Your task to perform on an android device: Open my contact list Image 0: 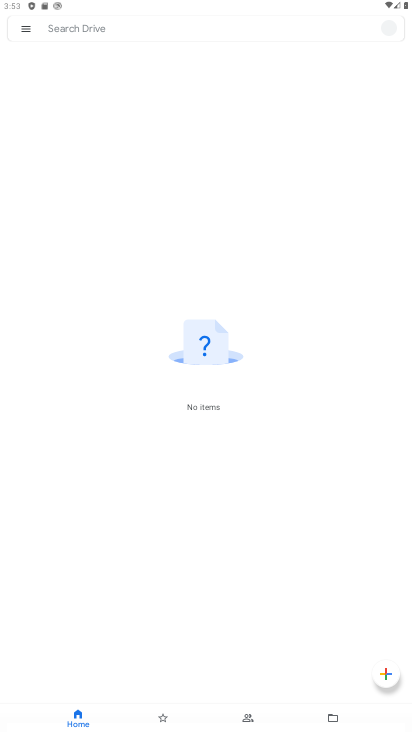
Step 0: drag from (258, 522) to (258, 56)
Your task to perform on an android device: Open my contact list Image 1: 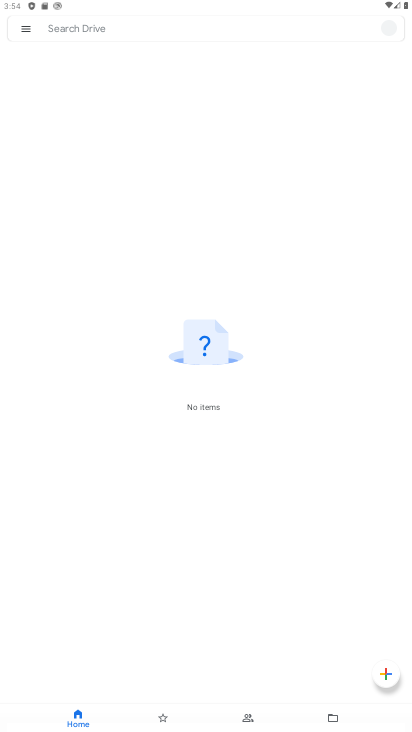
Step 1: press home button
Your task to perform on an android device: Open my contact list Image 2: 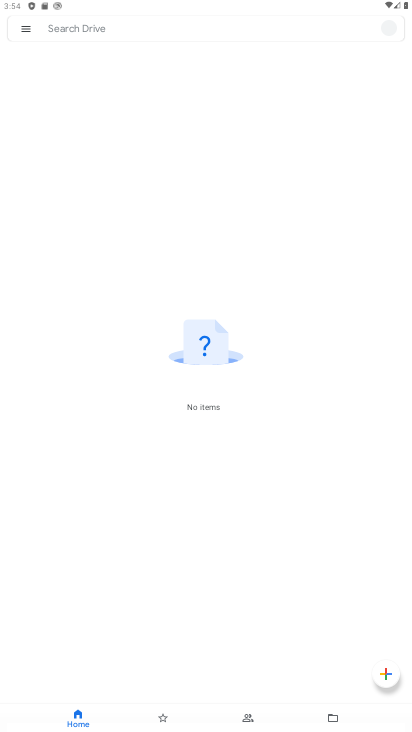
Step 2: drag from (268, 674) to (278, 299)
Your task to perform on an android device: Open my contact list Image 3: 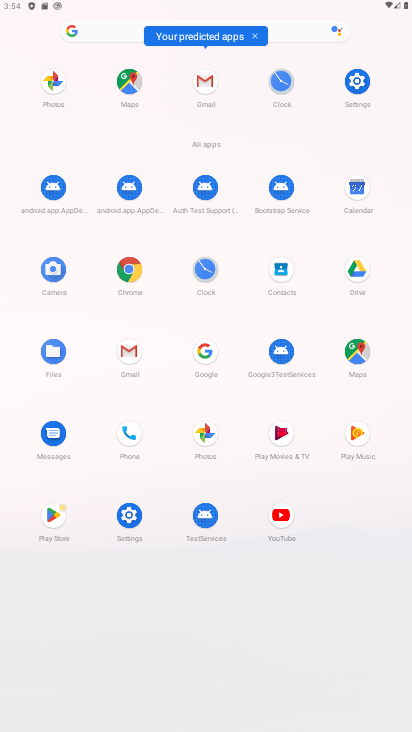
Step 3: click (290, 275)
Your task to perform on an android device: Open my contact list Image 4: 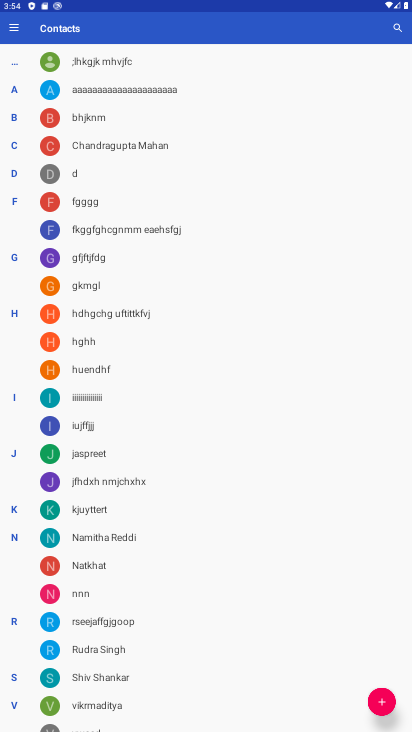
Step 4: task complete